Your task to perform on an android device: Go to Yahoo.com Image 0: 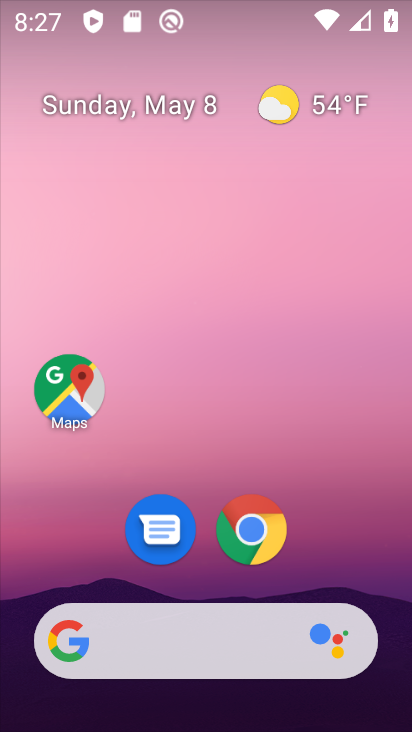
Step 0: press home button
Your task to perform on an android device: Go to Yahoo.com Image 1: 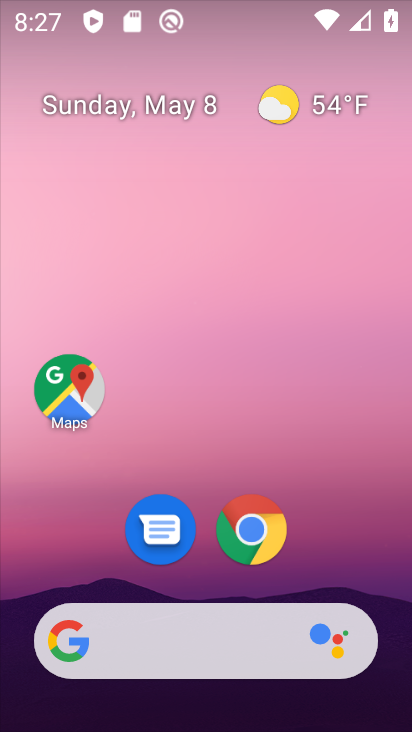
Step 1: drag from (358, 566) to (377, 68)
Your task to perform on an android device: Go to Yahoo.com Image 2: 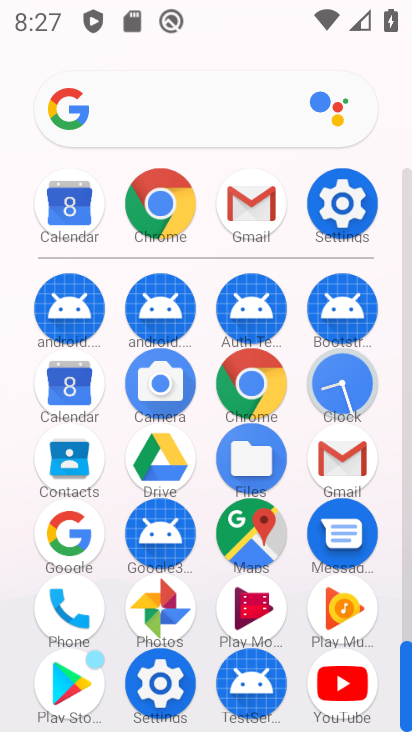
Step 2: click (258, 371)
Your task to perform on an android device: Go to Yahoo.com Image 3: 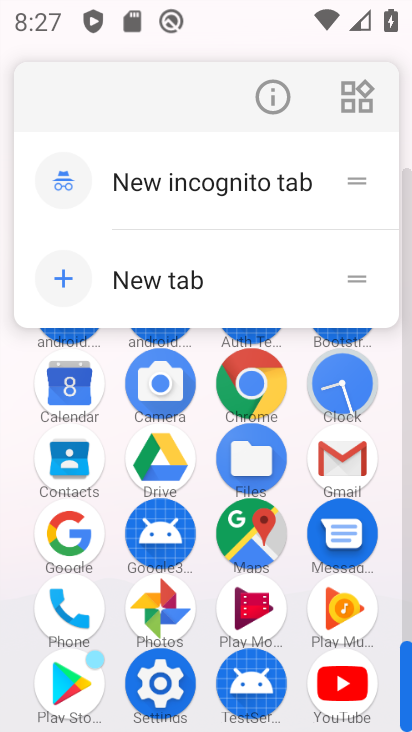
Step 3: click (265, 383)
Your task to perform on an android device: Go to Yahoo.com Image 4: 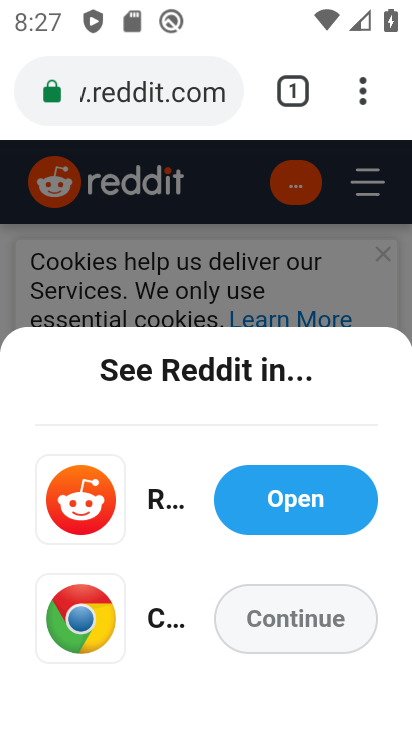
Step 4: click (197, 97)
Your task to perform on an android device: Go to Yahoo.com Image 5: 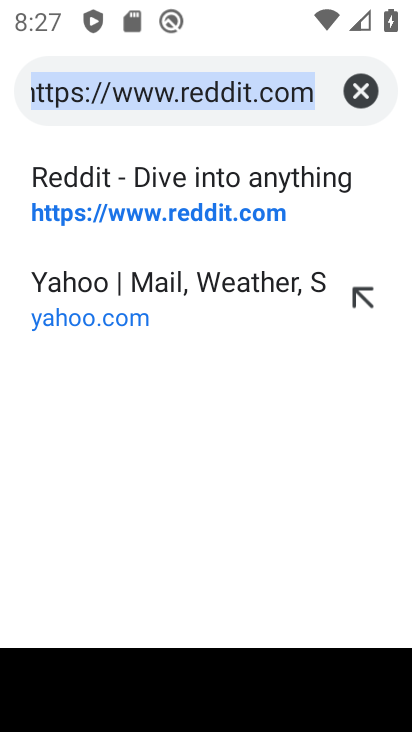
Step 5: click (345, 96)
Your task to perform on an android device: Go to Yahoo.com Image 6: 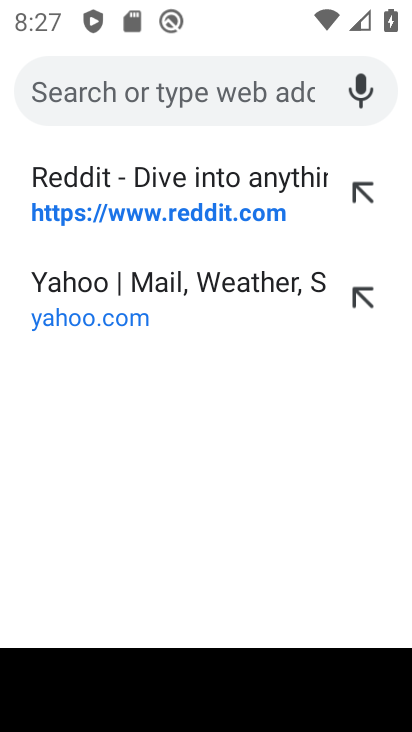
Step 6: type "yahoo.com"
Your task to perform on an android device: Go to Yahoo.com Image 7: 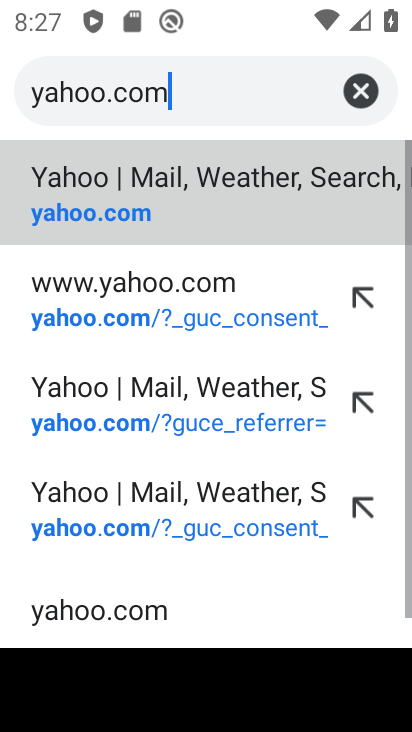
Step 7: click (161, 182)
Your task to perform on an android device: Go to Yahoo.com Image 8: 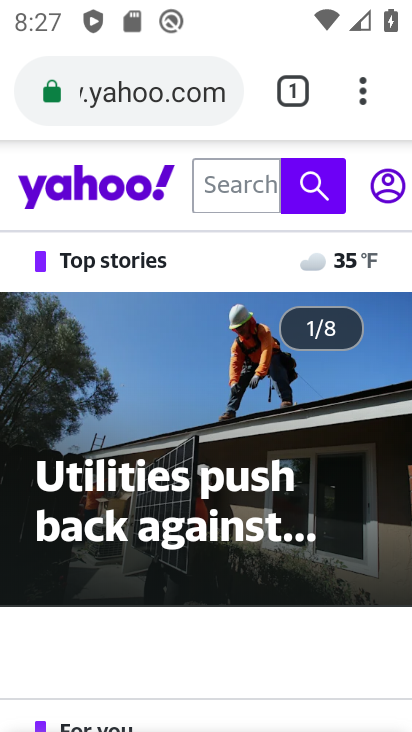
Step 8: task complete